Your task to perform on an android device: Go to internet settings Image 0: 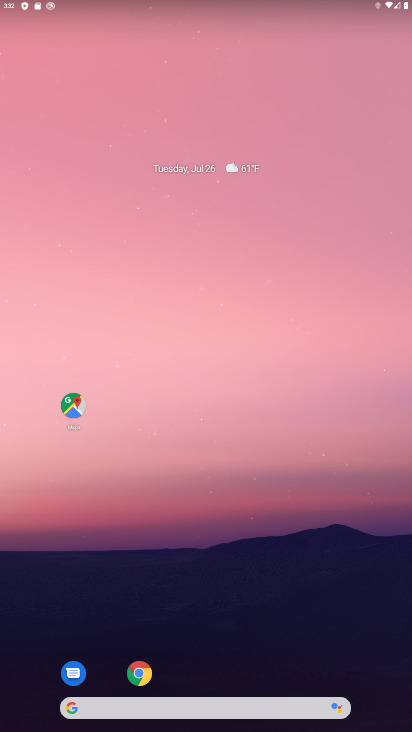
Step 0: press home button
Your task to perform on an android device: Go to internet settings Image 1: 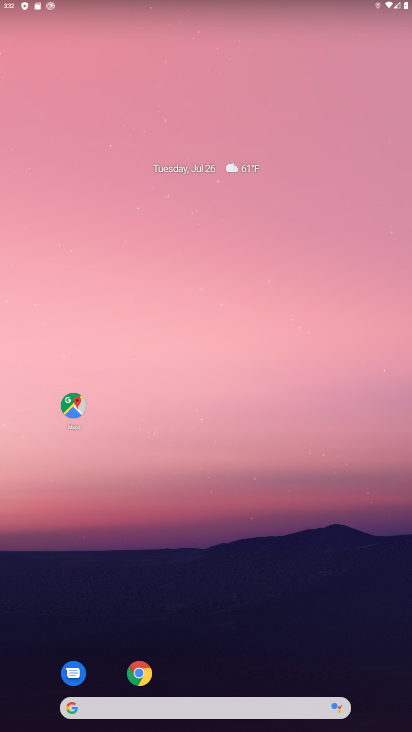
Step 1: drag from (212, 682) to (316, 90)
Your task to perform on an android device: Go to internet settings Image 2: 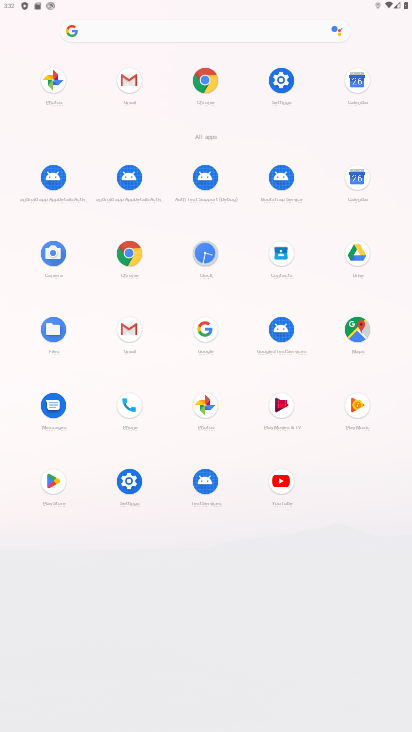
Step 2: click (278, 76)
Your task to perform on an android device: Go to internet settings Image 3: 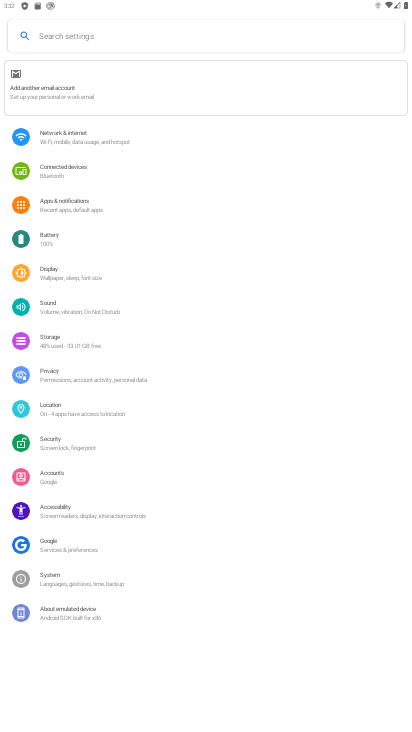
Step 3: click (105, 131)
Your task to perform on an android device: Go to internet settings Image 4: 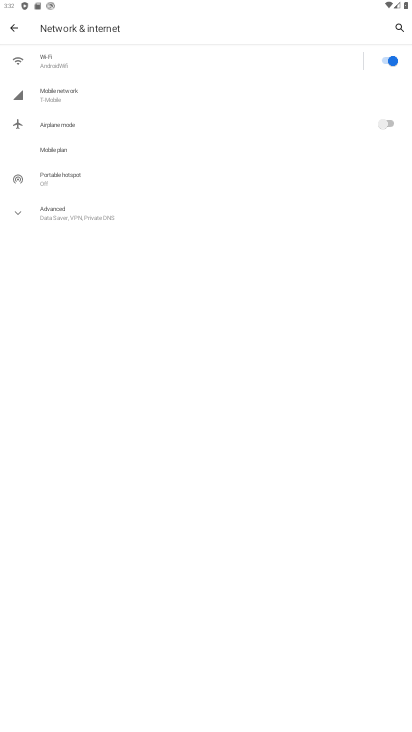
Step 4: click (23, 203)
Your task to perform on an android device: Go to internet settings Image 5: 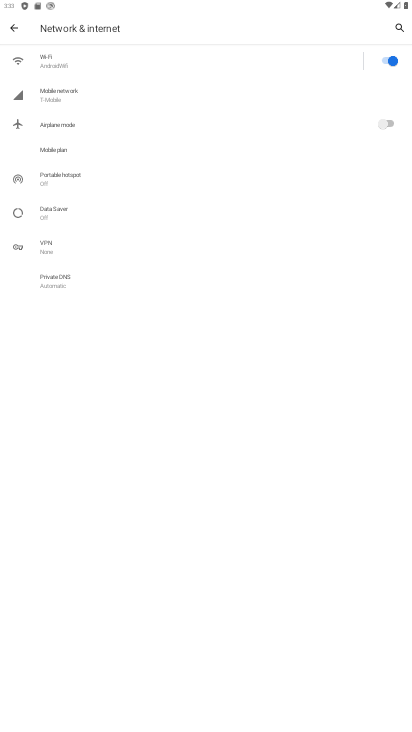
Step 5: task complete